Your task to perform on an android device: open app "DoorDash - Dasher" (install if not already installed) and enter user name: "resistor@inbox.com" and password: "cholera" Image 0: 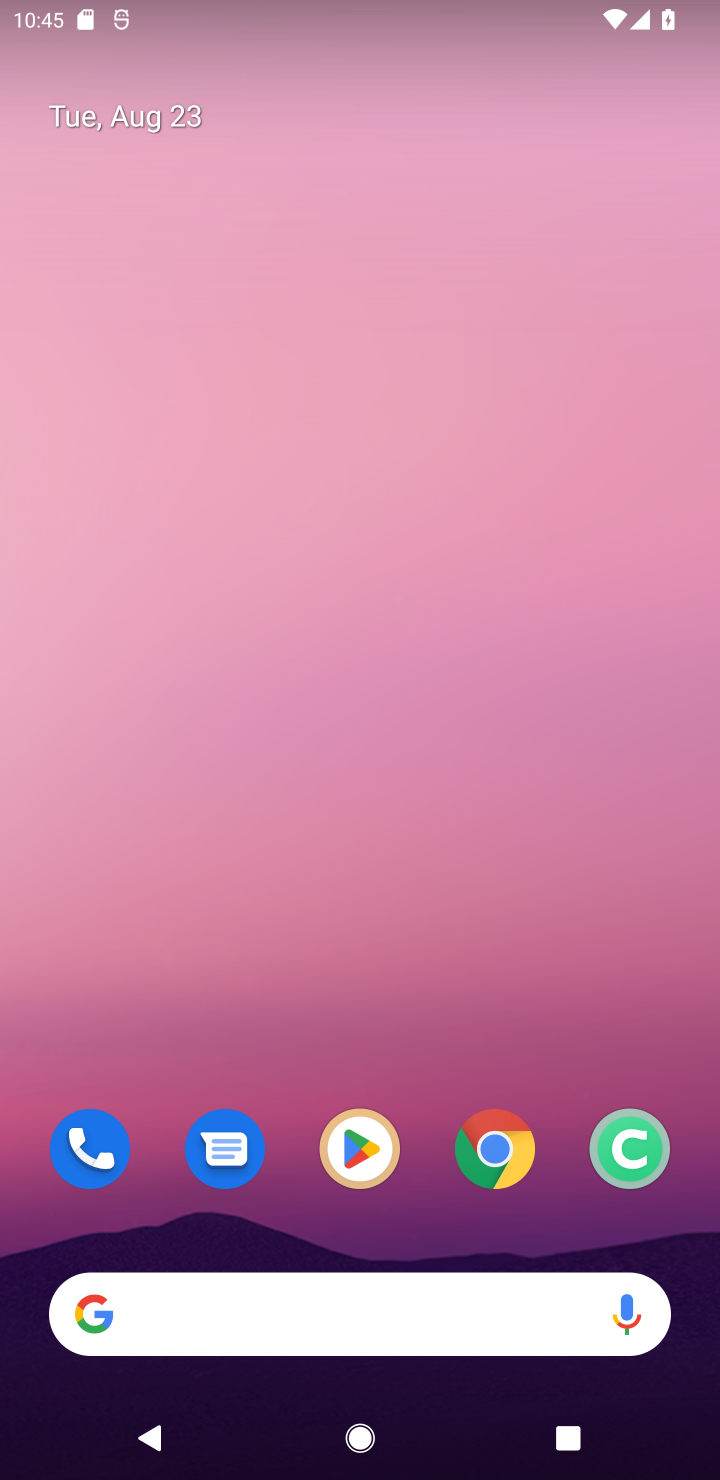
Step 0: click (358, 1168)
Your task to perform on an android device: open app "DoorDash - Dasher" (install if not already installed) and enter user name: "resistor@inbox.com" and password: "cholera" Image 1: 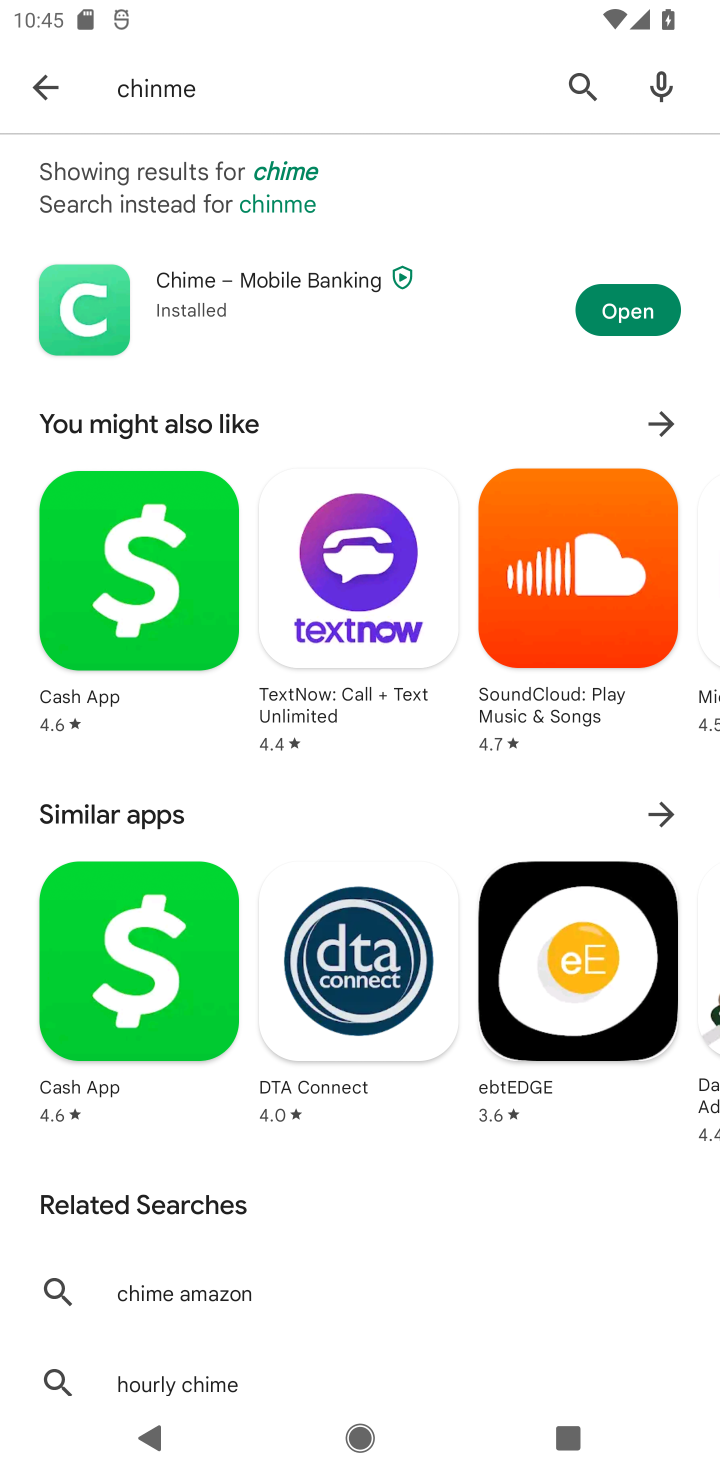
Step 1: click (608, 75)
Your task to perform on an android device: open app "DoorDash - Dasher" (install if not already installed) and enter user name: "resistor@inbox.com" and password: "cholera" Image 2: 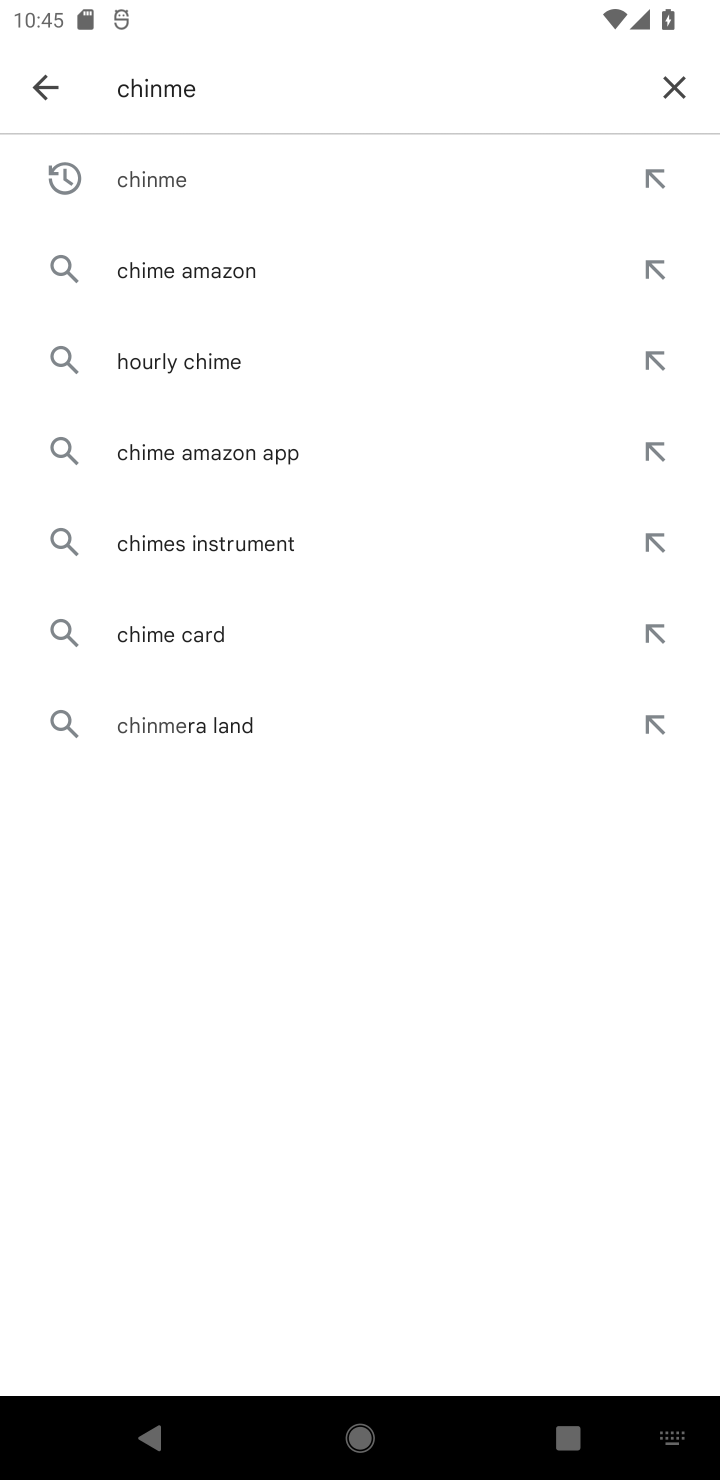
Step 2: click (666, 75)
Your task to perform on an android device: open app "DoorDash - Dasher" (install if not already installed) and enter user name: "resistor@inbox.com" and password: "cholera" Image 3: 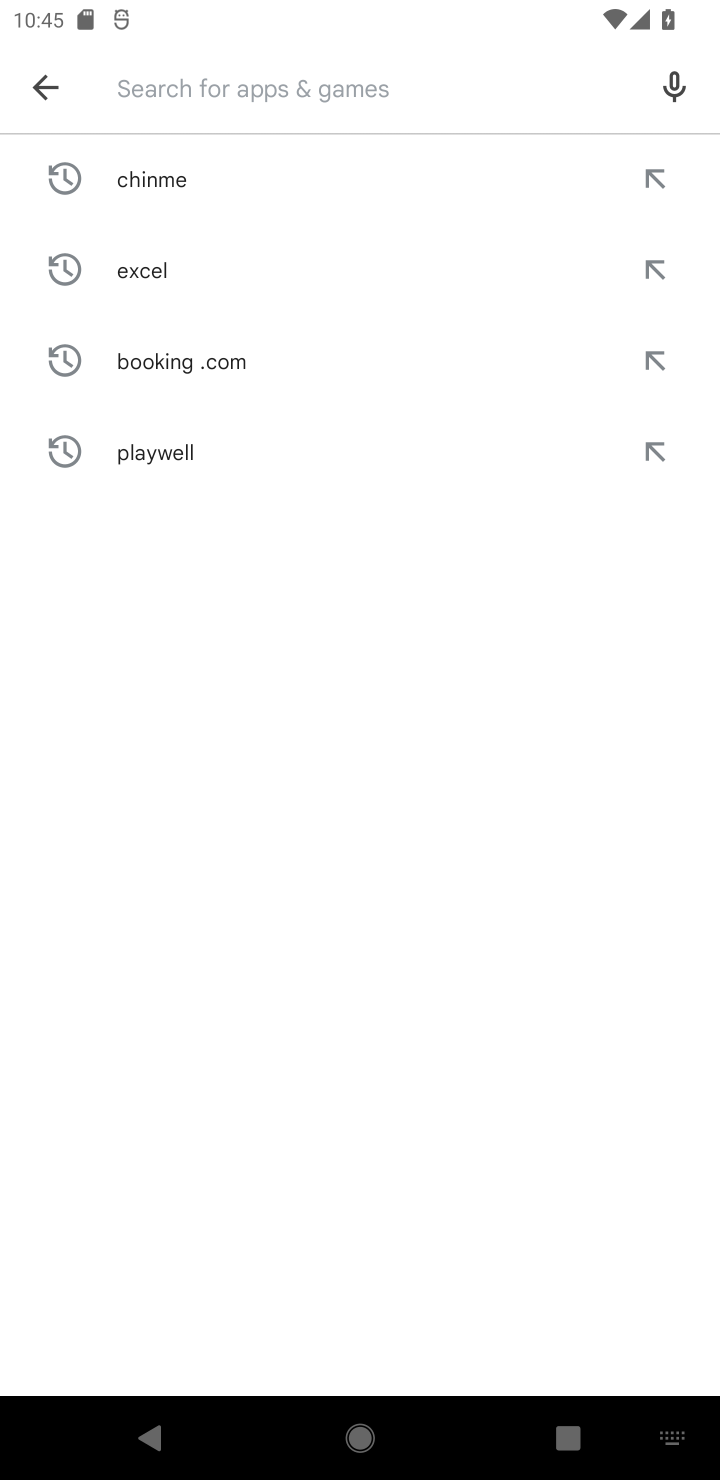
Step 3: type "doordash"
Your task to perform on an android device: open app "DoorDash - Dasher" (install if not already installed) and enter user name: "resistor@inbox.com" and password: "cholera" Image 4: 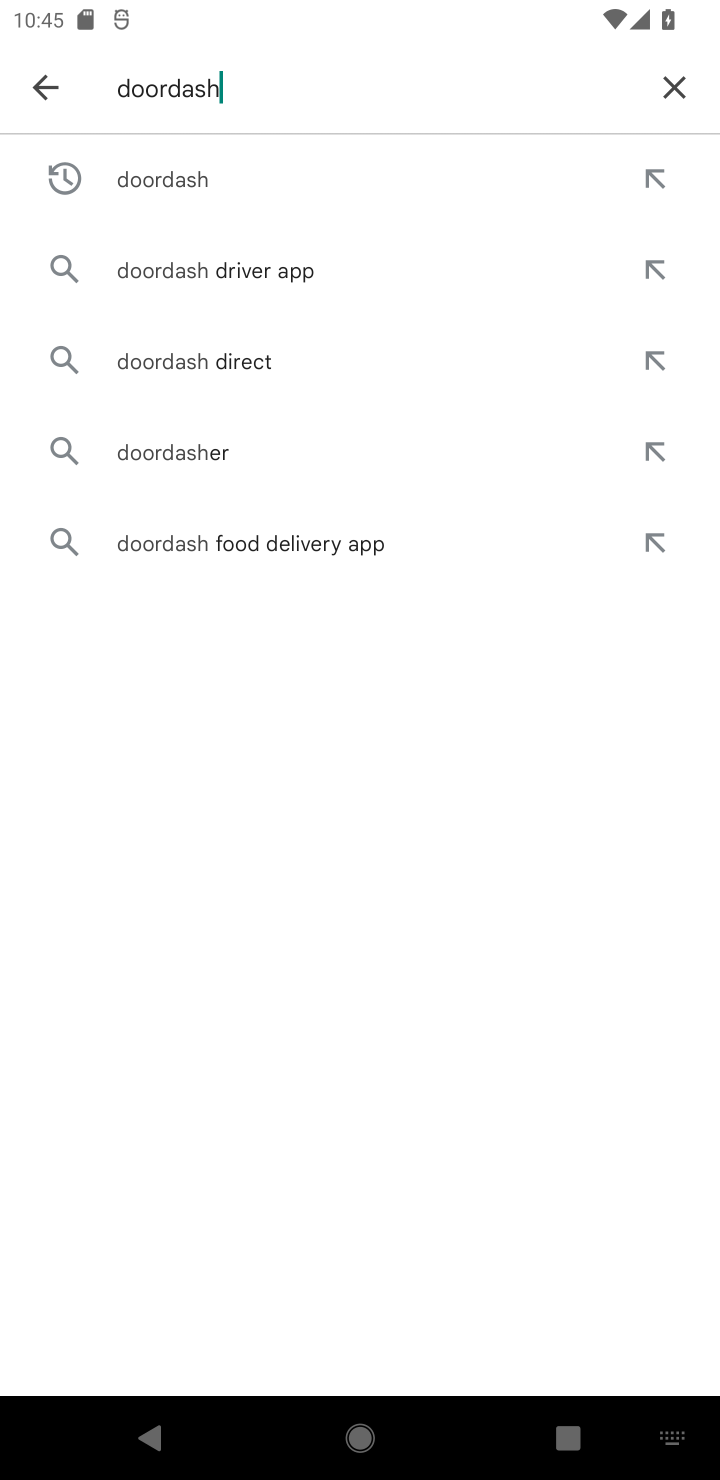
Step 4: click (186, 169)
Your task to perform on an android device: open app "DoorDash - Dasher" (install if not already installed) and enter user name: "resistor@inbox.com" and password: "cholera" Image 5: 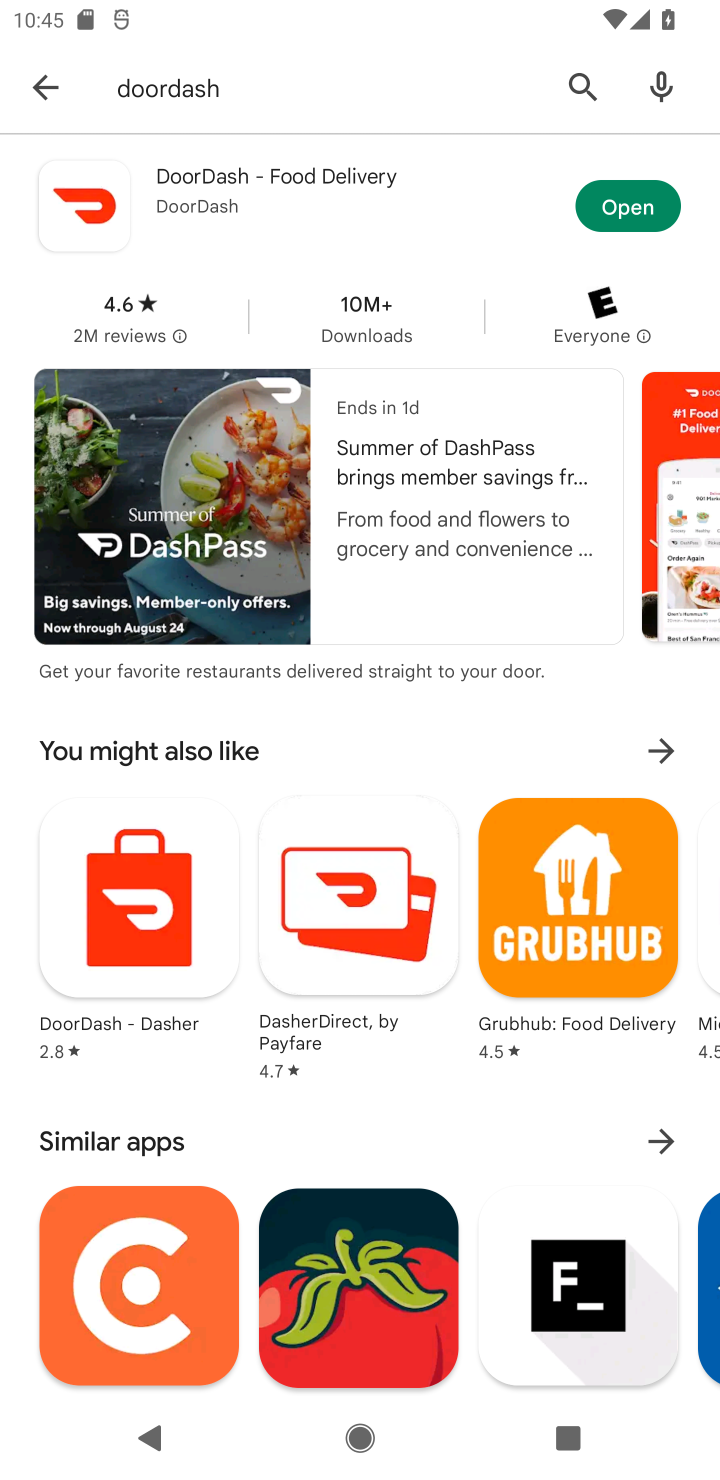
Step 5: click (594, 205)
Your task to perform on an android device: open app "DoorDash - Dasher" (install if not already installed) and enter user name: "resistor@inbox.com" and password: "cholera" Image 6: 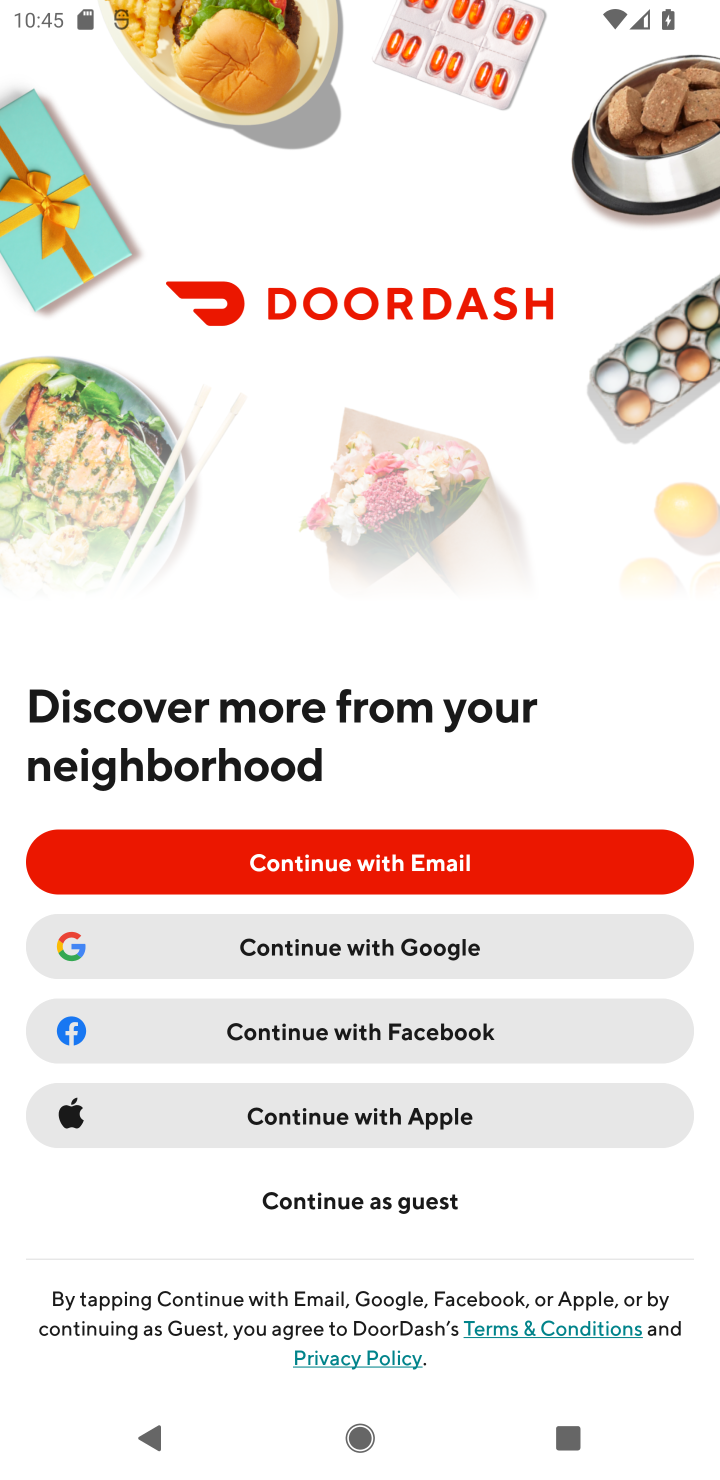
Step 6: click (368, 853)
Your task to perform on an android device: open app "DoorDash - Dasher" (install if not already installed) and enter user name: "resistor@inbox.com" and password: "cholera" Image 7: 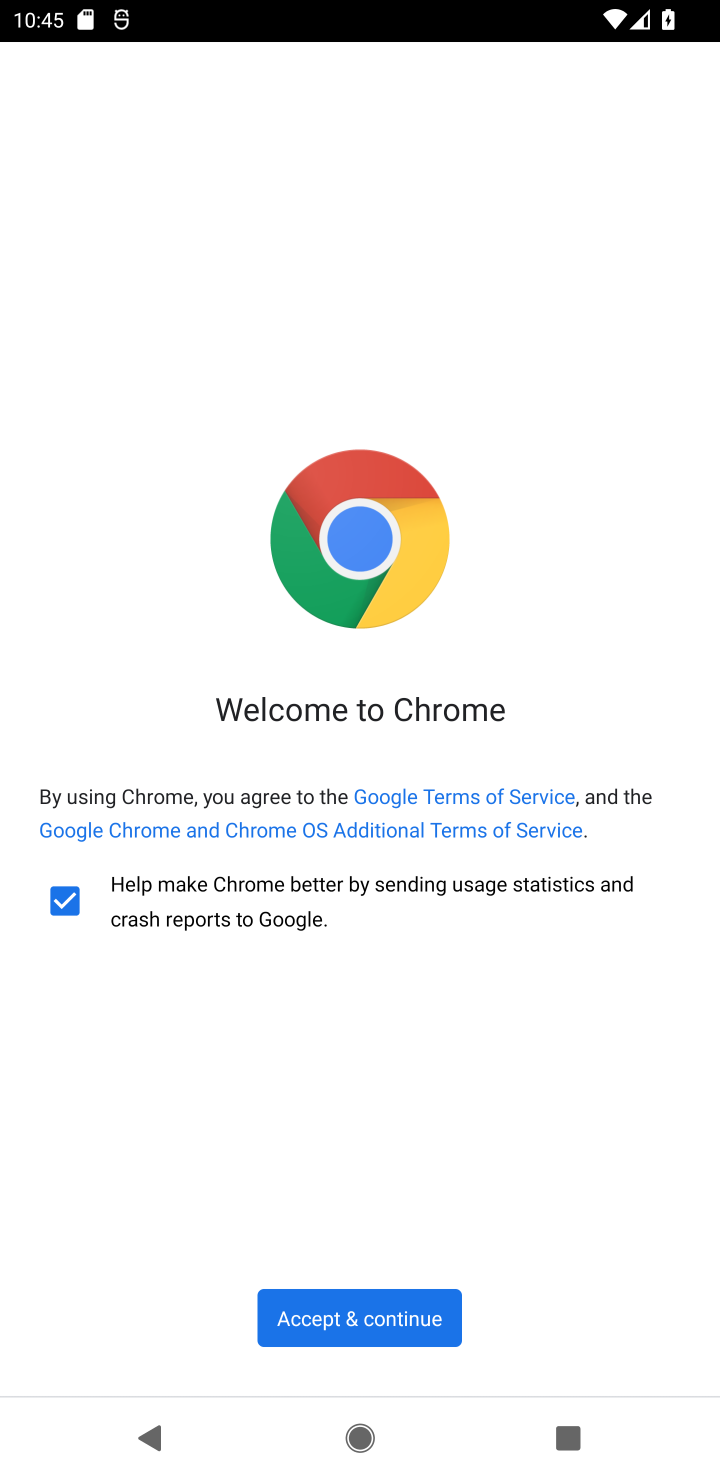
Step 7: click (415, 1318)
Your task to perform on an android device: open app "DoorDash - Dasher" (install if not already installed) and enter user name: "resistor@inbox.com" and password: "cholera" Image 8: 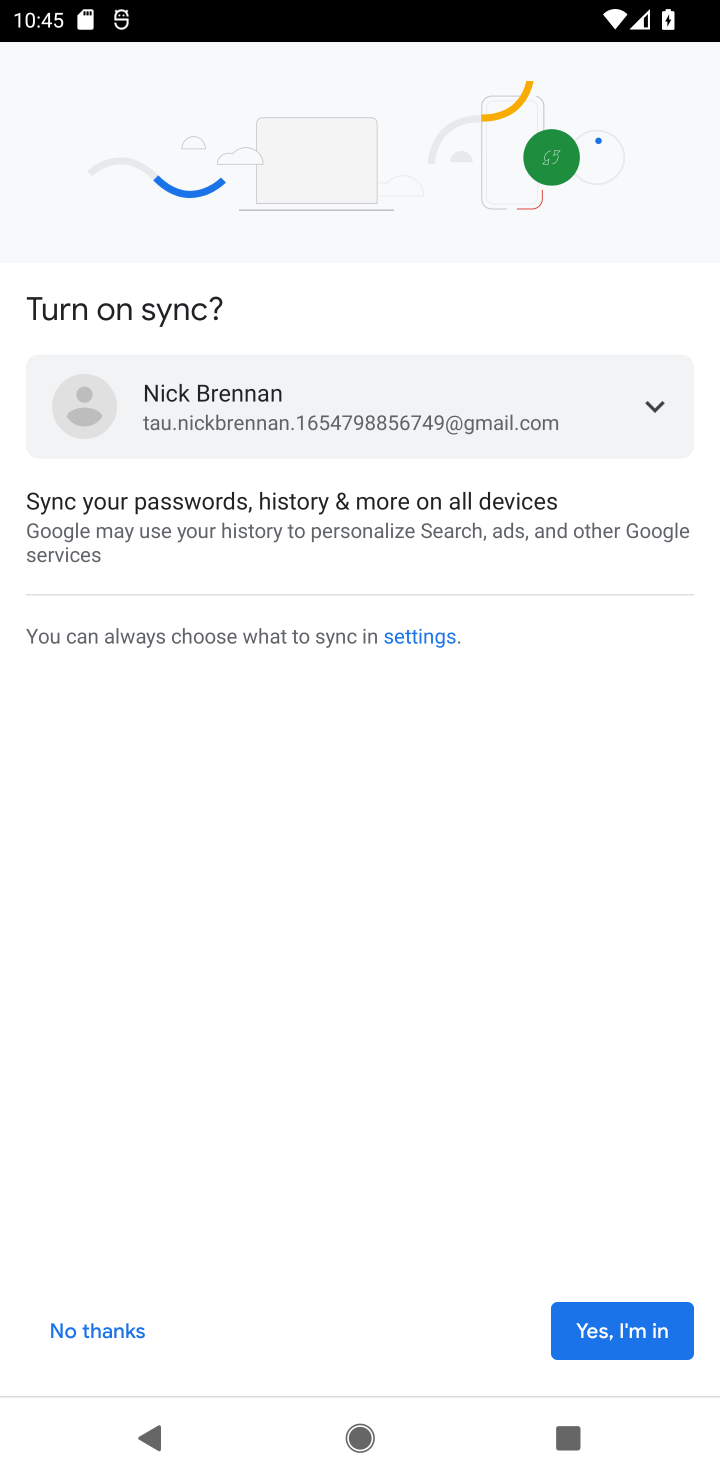
Step 8: click (565, 1332)
Your task to perform on an android device: open app "DoorDash - Dasher" (install if not already installed) and enter user name: "resistor@inbox.com" and password: "cholera" Image 9: 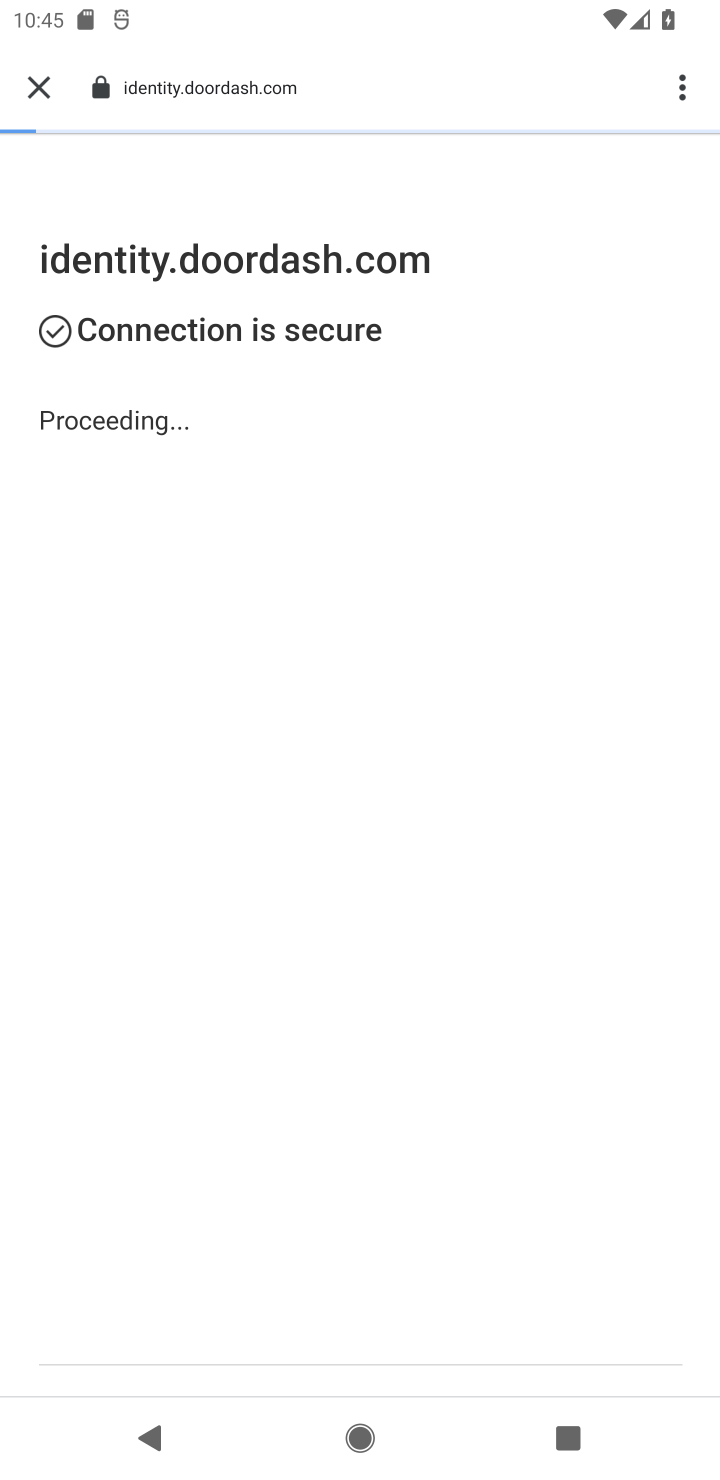
Step 9: task complete